Your task to perform on an android device: change the upload size in google photos Image 0: 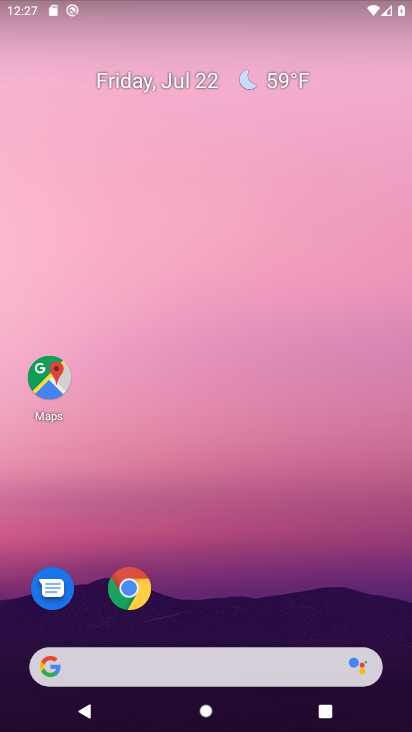
Step 0: click (221, 252)
Your task to perform on an android device: change the upload size in google photos Image 1: 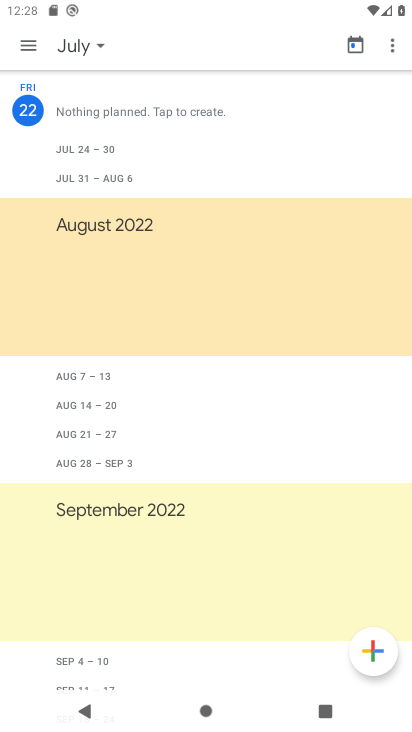
Step 1: press home button
Your task to perform on an android device: change the upload size in google photos Image 2: 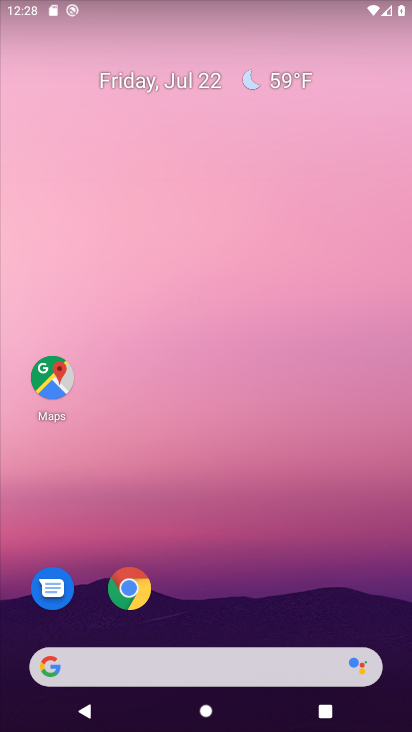
Step 2: drag from (166, 632) to (185, 115)
Your task to perform on an android device: change the upload size in google photos Image 3: 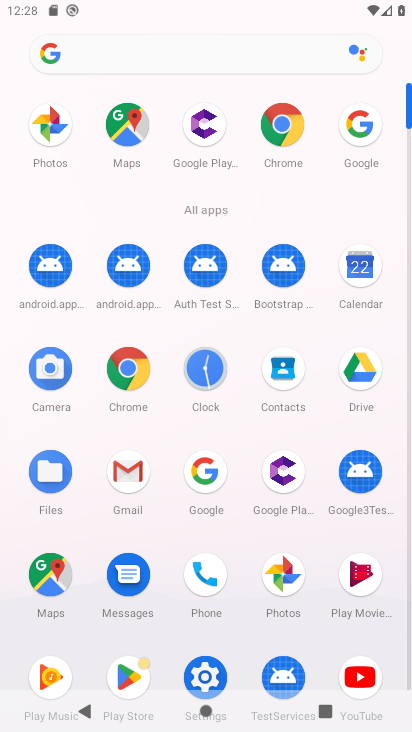
Step 3: click (275, 569)
Your task to perform on an android device: change the upload size in google photos Image 4: 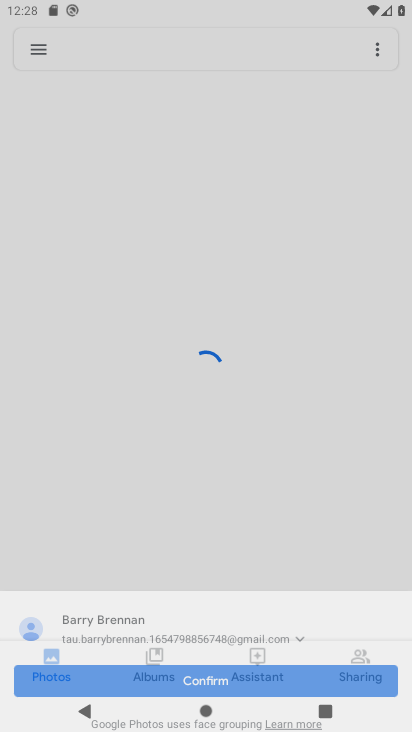
Step 4: click (33, 55)
Your task to perform on an android device: change the upload size in google photos Image 5: 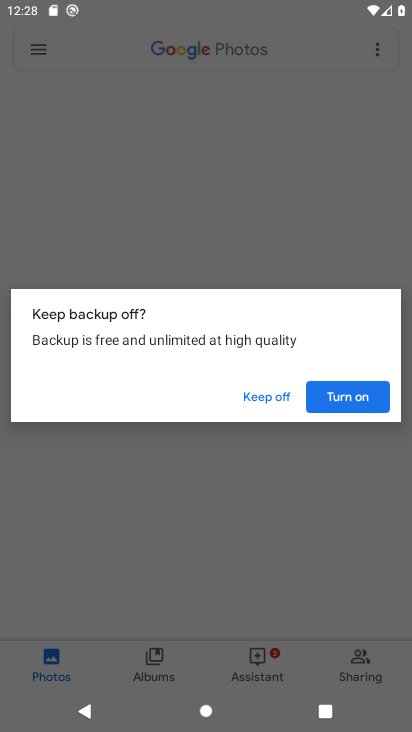
Step 5: click (339, 410)
Your task to perform on an android device: change the upload size in google photos Image 6: 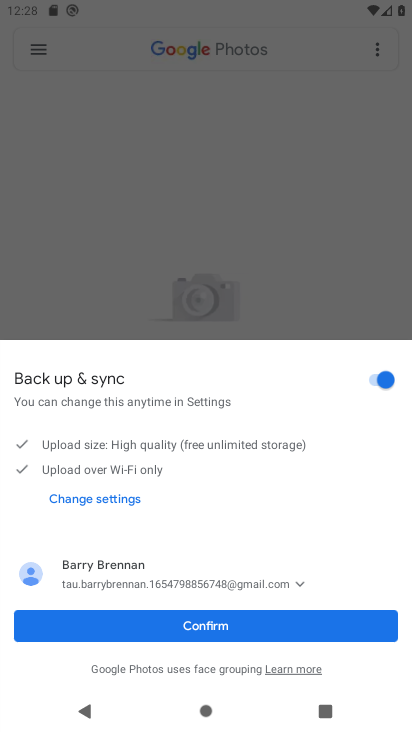
Step 6: click (200, 629)
Your task to perform on an android device: change the upload size in google photos Image 7: 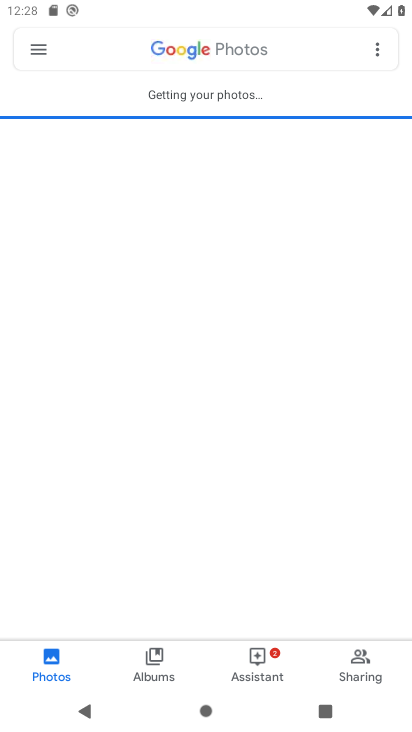
Step 7: click (44, 49)
Your task to perform on an android device: change the upload size in google photos Image 8: 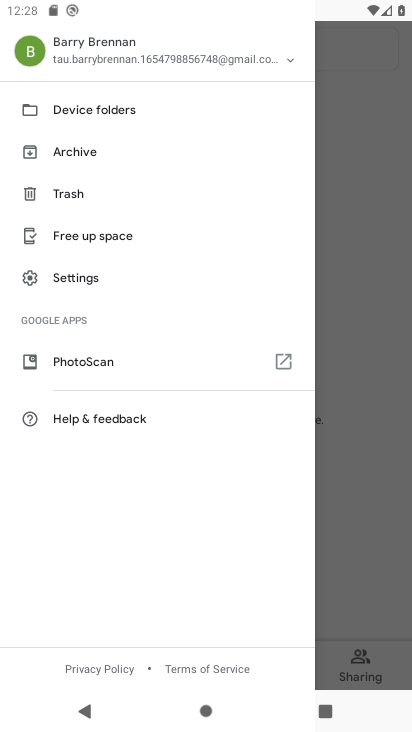
Step 8: click (73, 285)
Your task to perform on an android device: change the upload size in google photos Image 9: 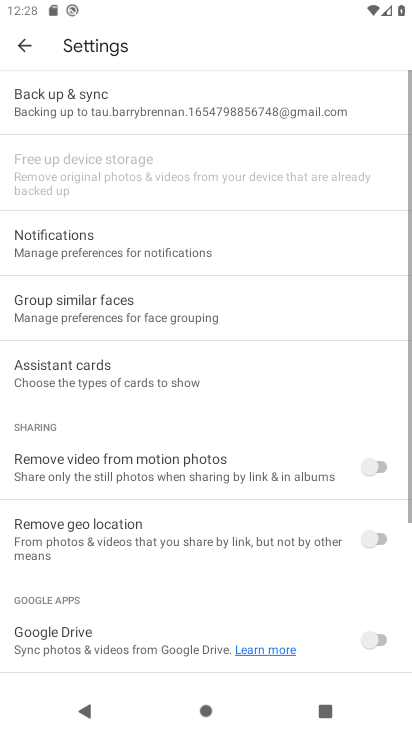
Step 9: click (73, 101)
Your task to perform on an android device: change the upload size in google photos Image 10: 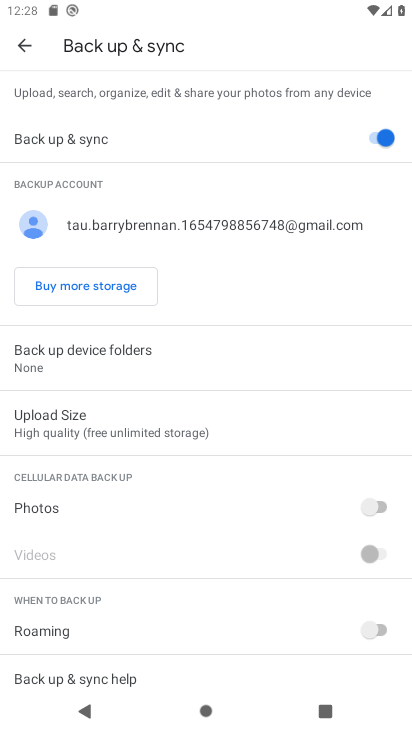
Step 10: click (58, 429)
Your task to perform on an android device: change the upload size in google photos Image 11: 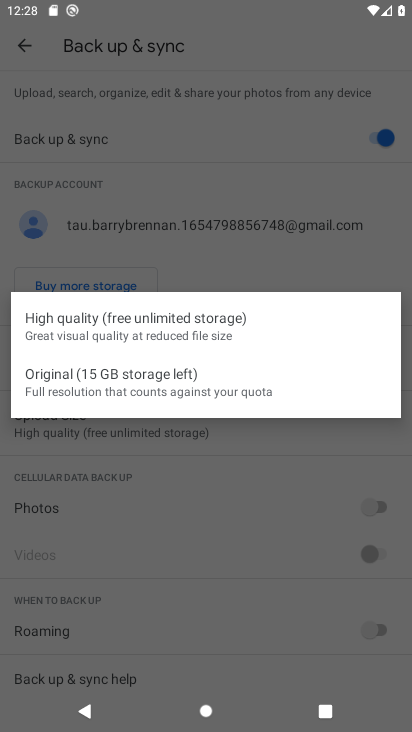
Step 11: click (63, 380)
Your task to perform on an android device: change the upload size in google photos Image 12: 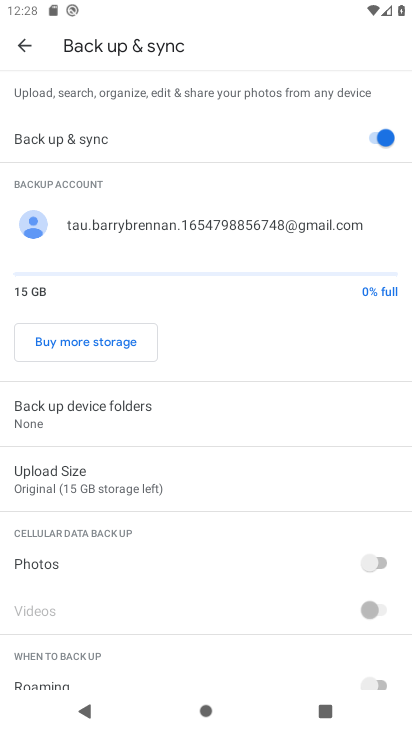
Step 12: task complete